Your task to perform on an android device: Add usb-c to the cart on target Image 0: 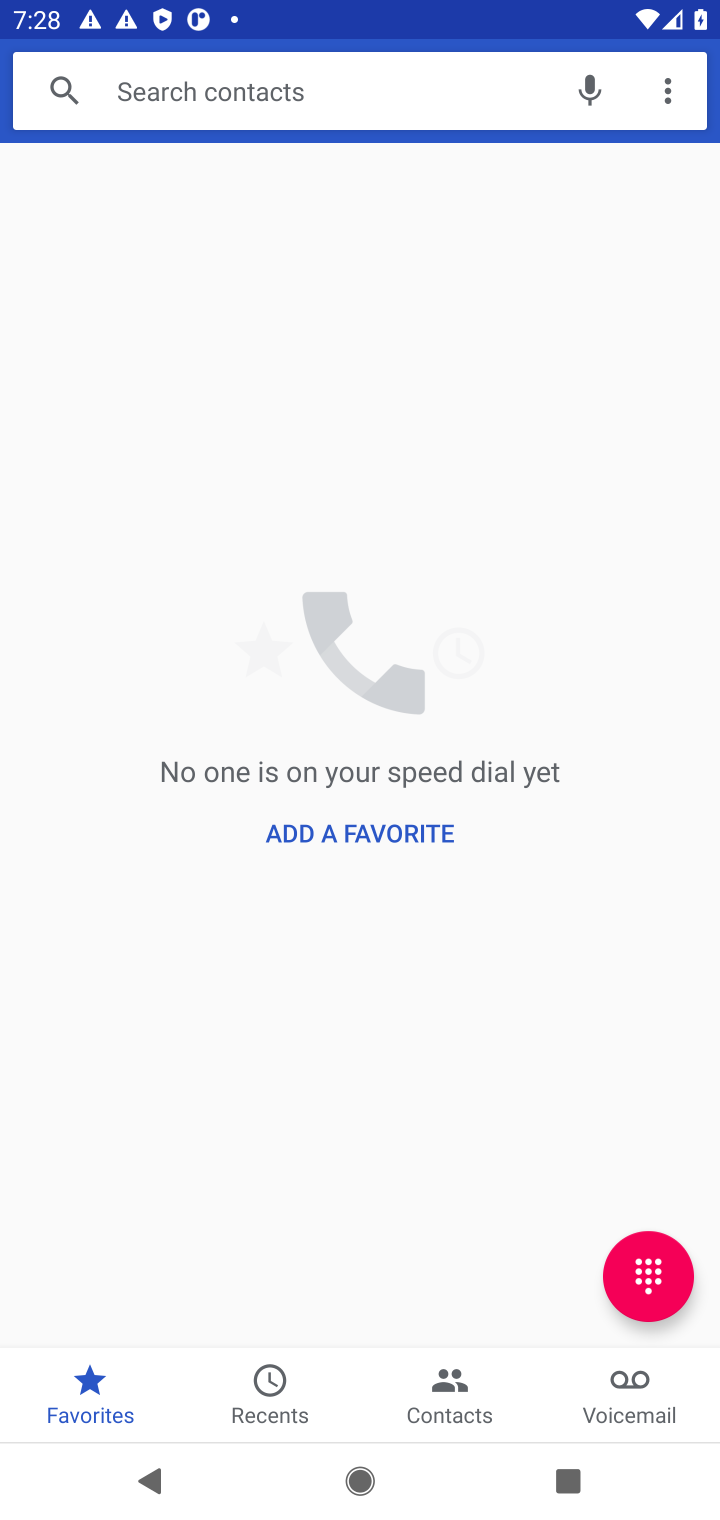
Step 0: press home button
Your task to perform on an android device: Add usb-c to the cart on target Image 1: 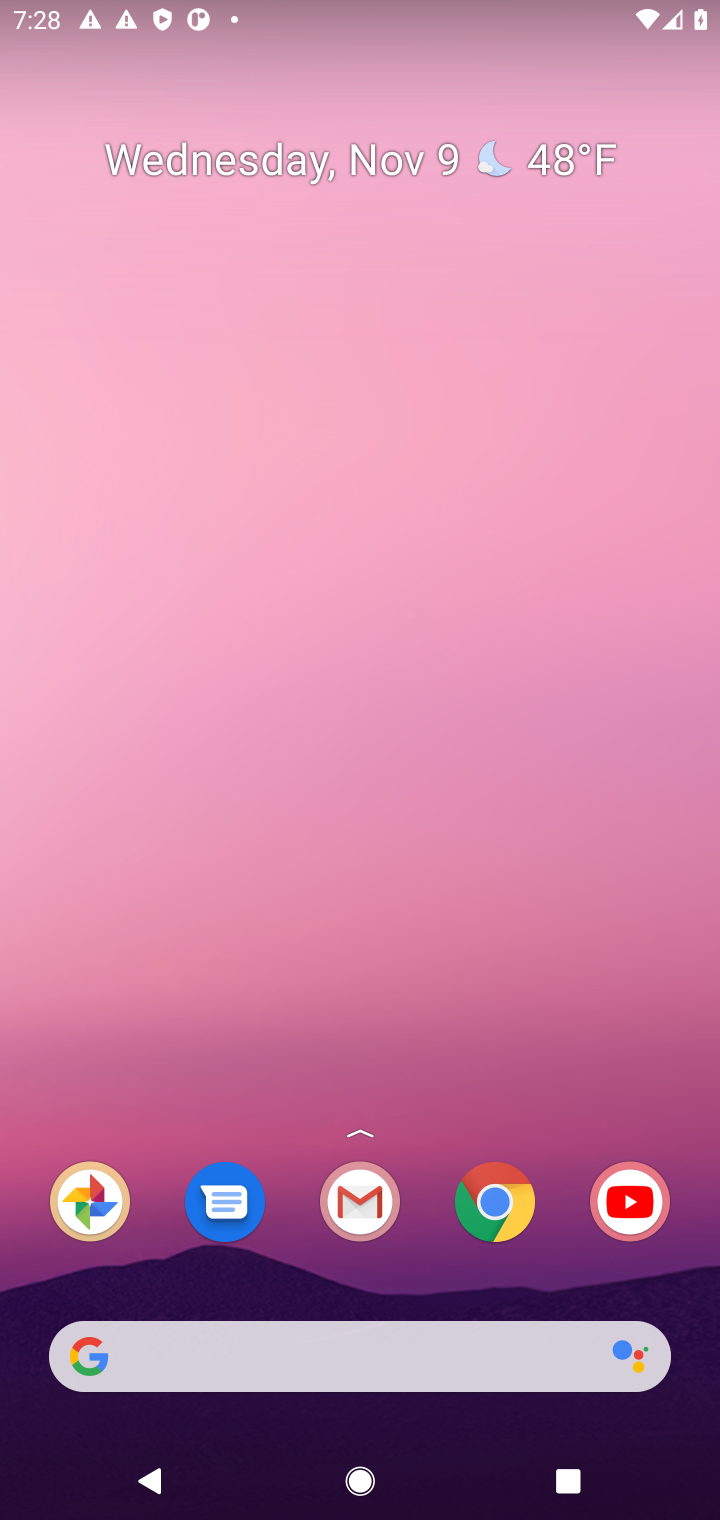
Step 1: click (506, 1200)
Your task to perform on an android device: Add usb-c to the cart on target Image 2: 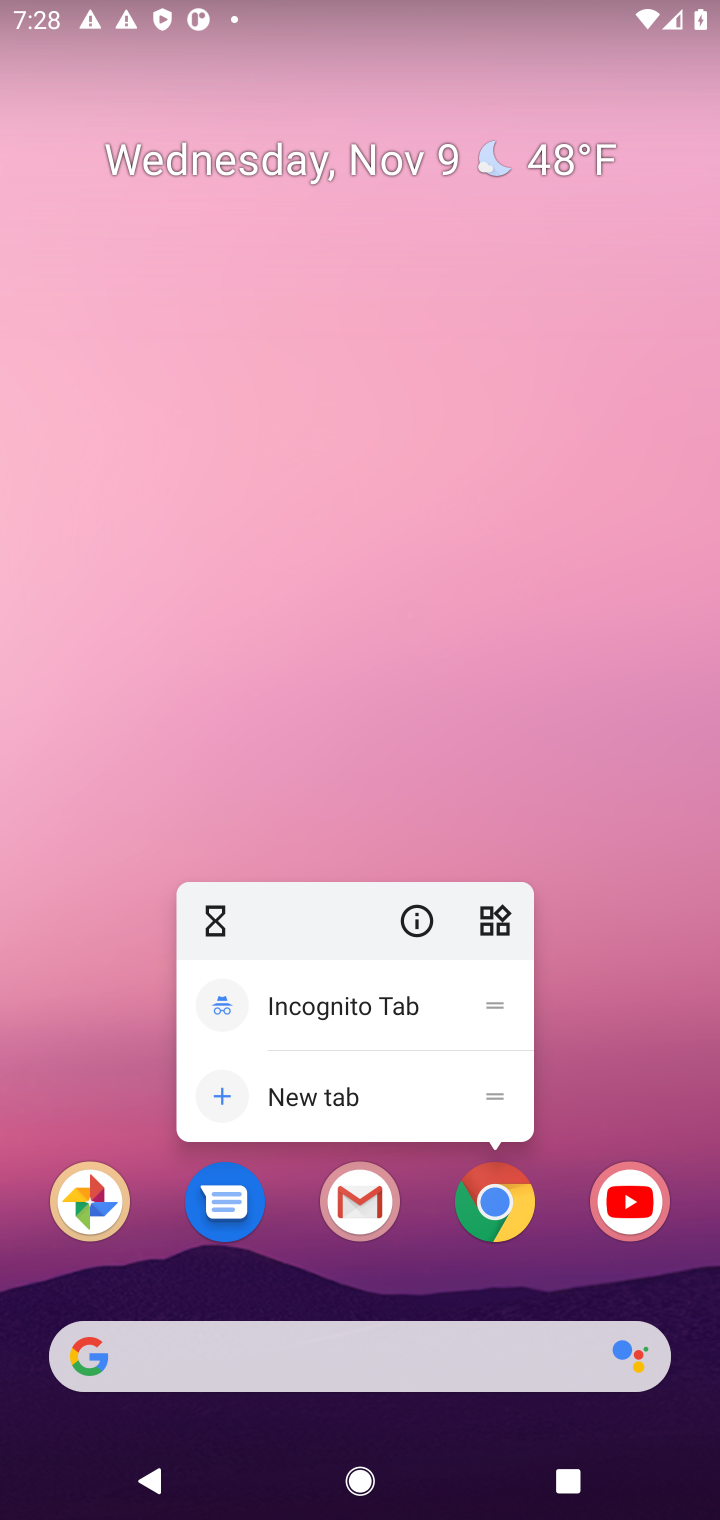
Step 2: click (506, 1204)
Your task to perform on an android device: Add usb-c to the cart on target Image 3: 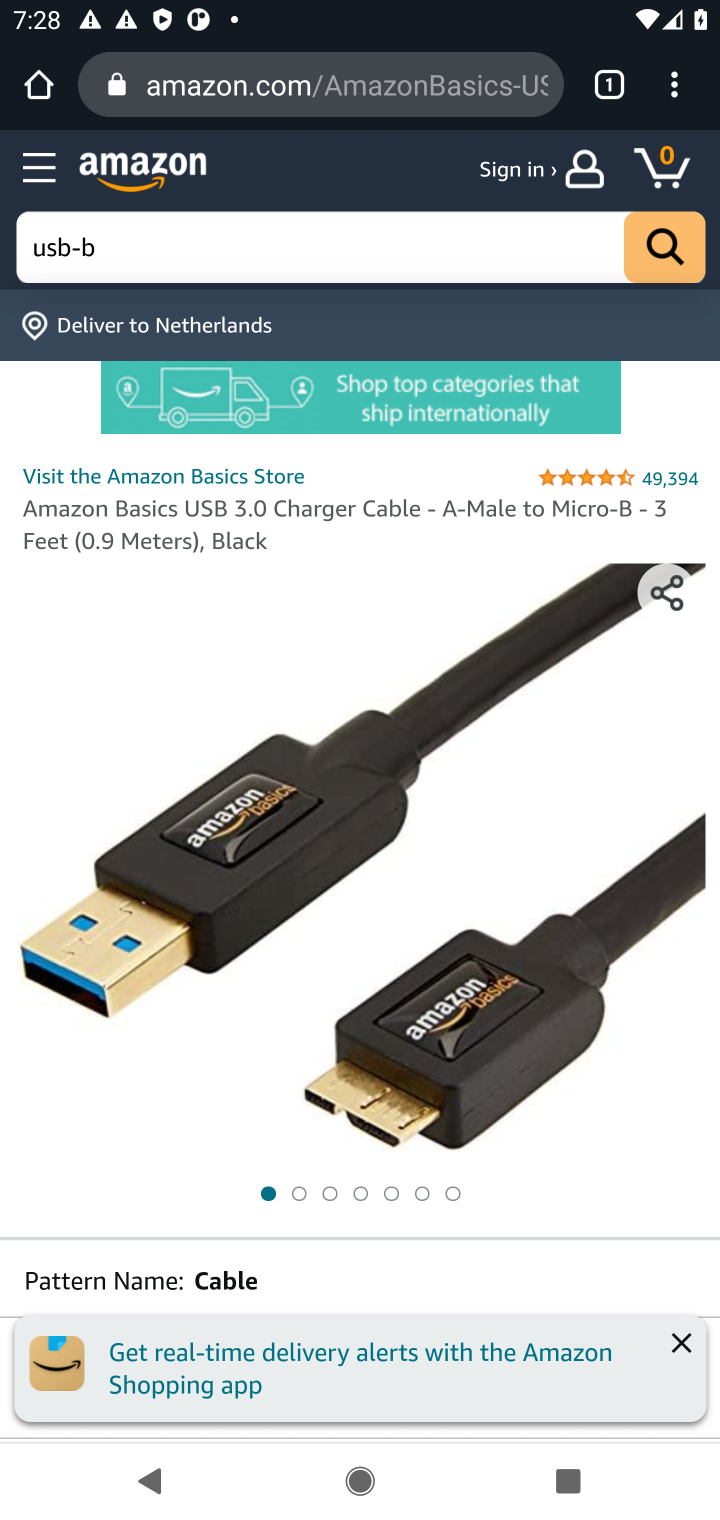
Step 3: click (393, 91)
Your task to perform on an android device: Add usb-c to the cart on target Image 4: 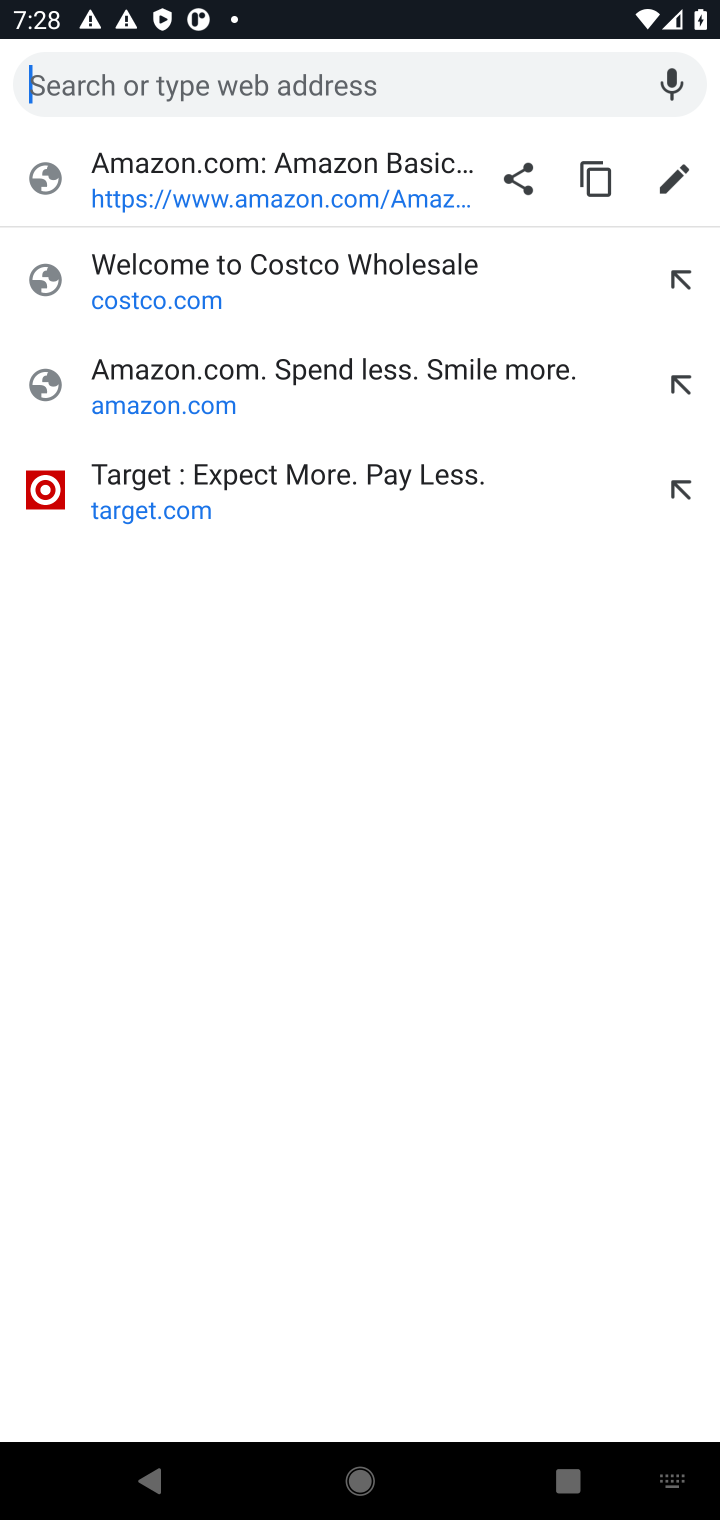
Step 4: click (55, 481)
Your task to perform on an android device: Add usb-c to the cart on target Image 5: 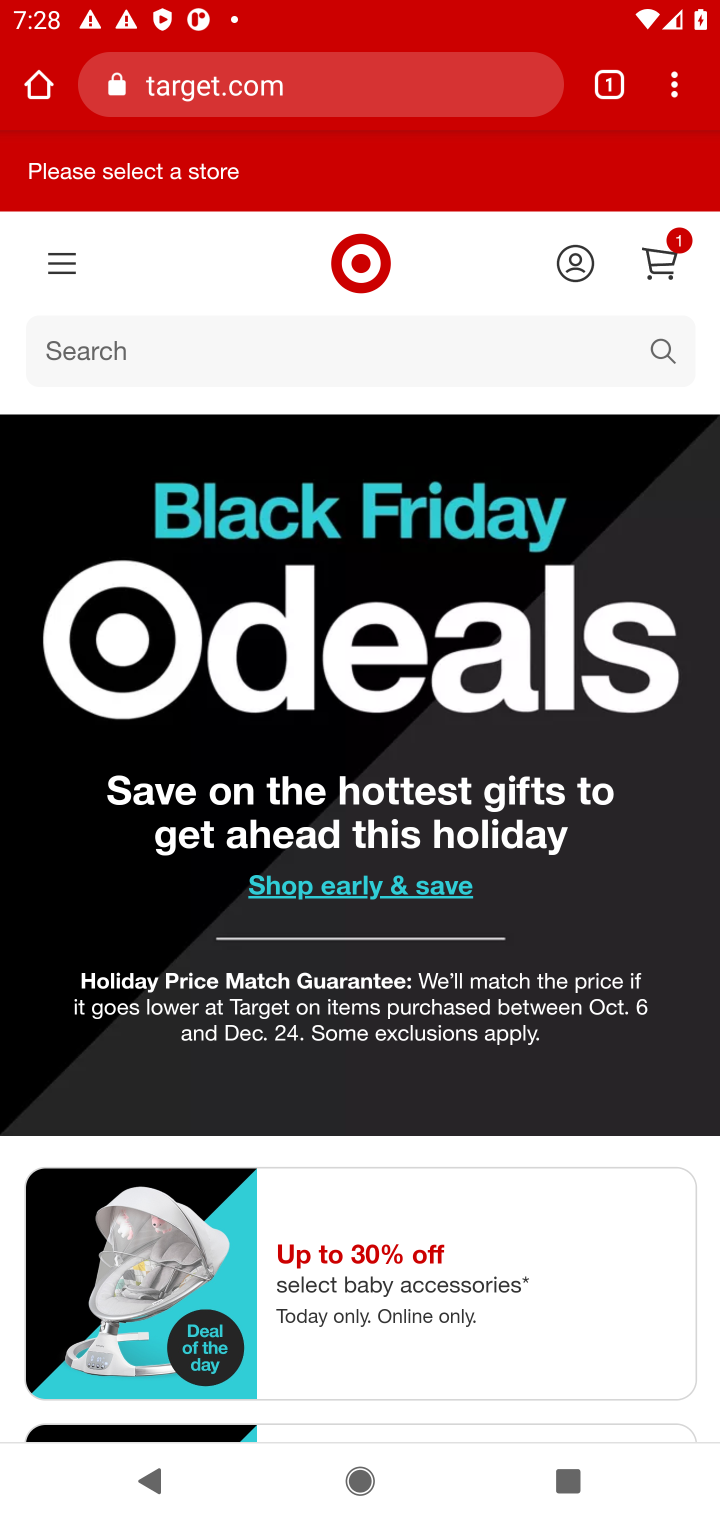
Step 5: drag from (307, 308) to (266, 395)
Your task to perform on an android device: Add usb-c to the cart on target Image 6: 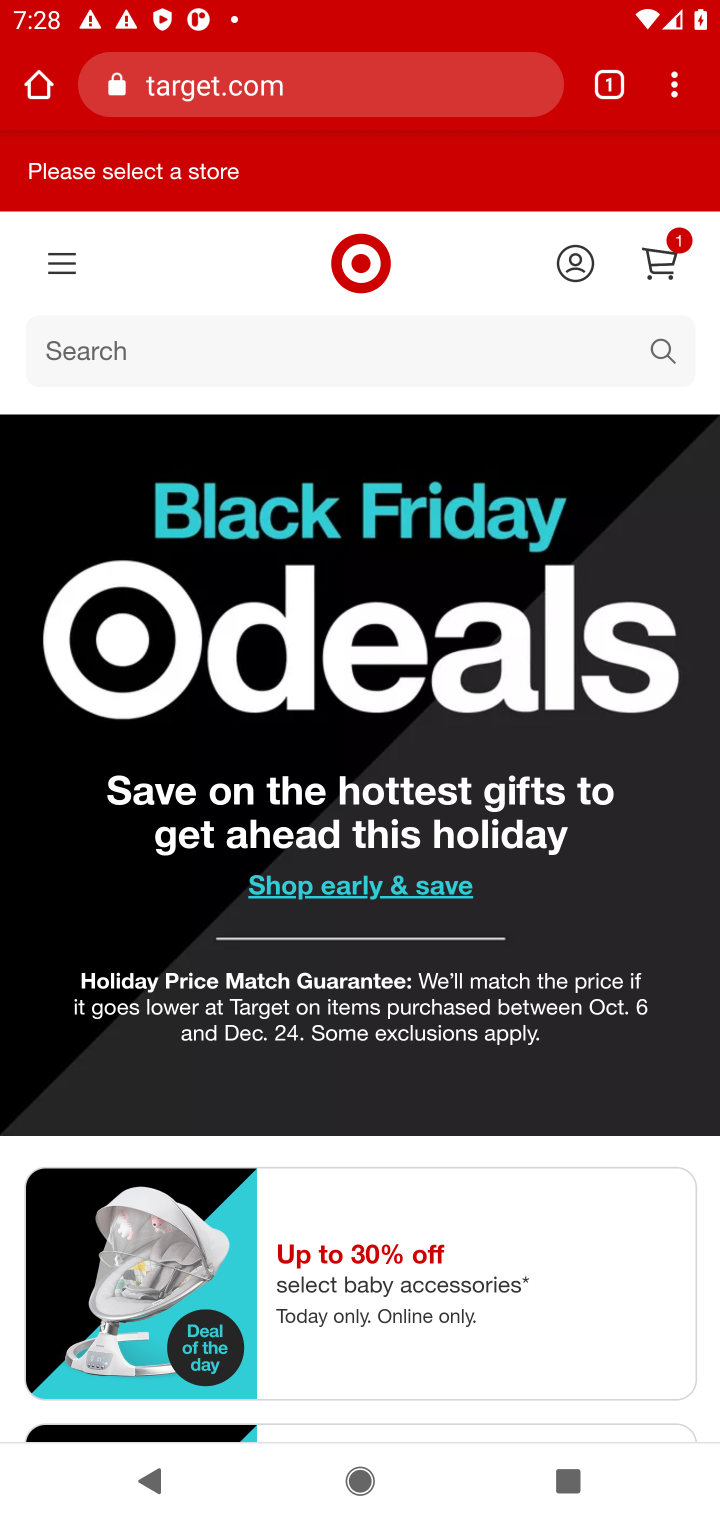
Step 6: click (284, 338)
Your task to perform on an android device: Add usb-c to the cart on target Image 7: 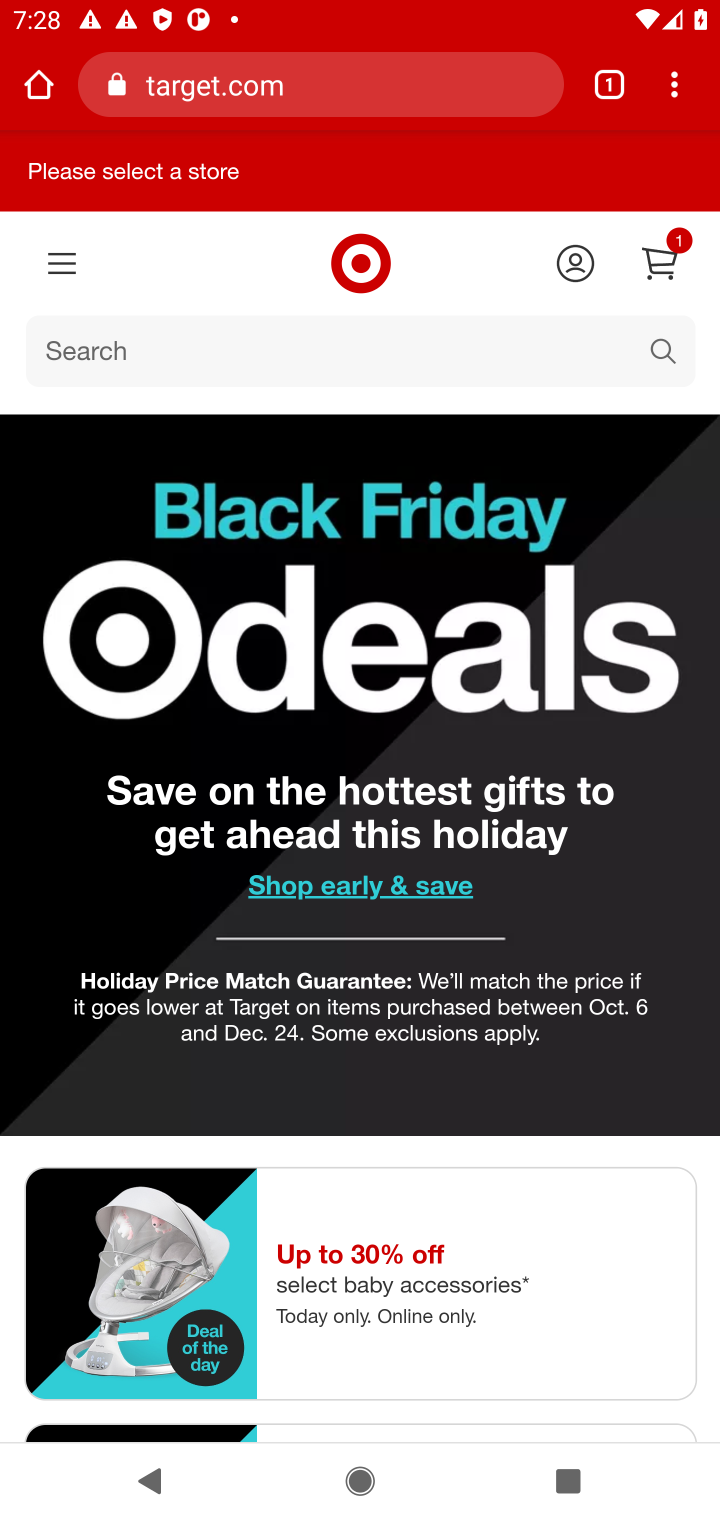
Step 7: click (105, 348)
Your task to perform on an android device: Add usb-c to the cart on target Image 8: 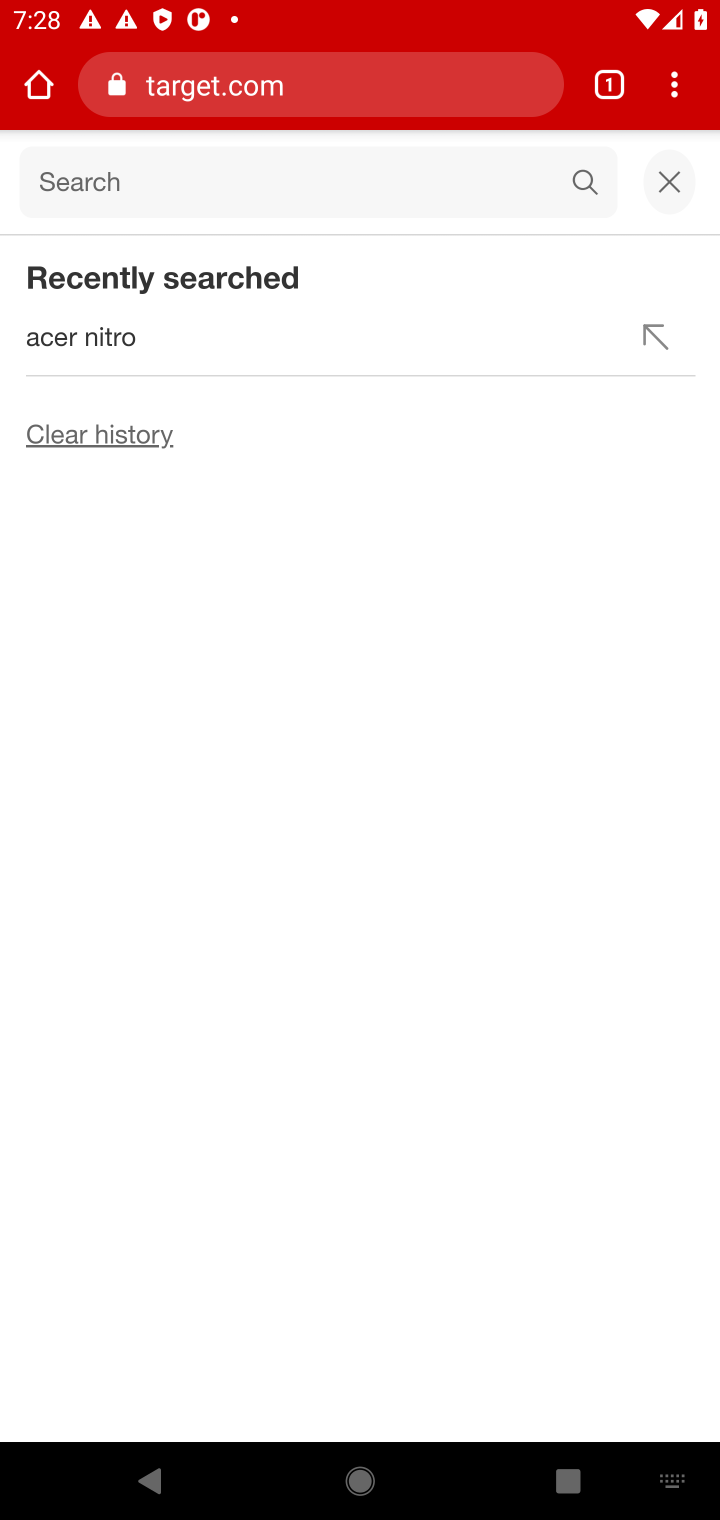
Step 8: type " usb-c "
Your task to perform on an android device: Add usb-c to the cart on target Image 9: 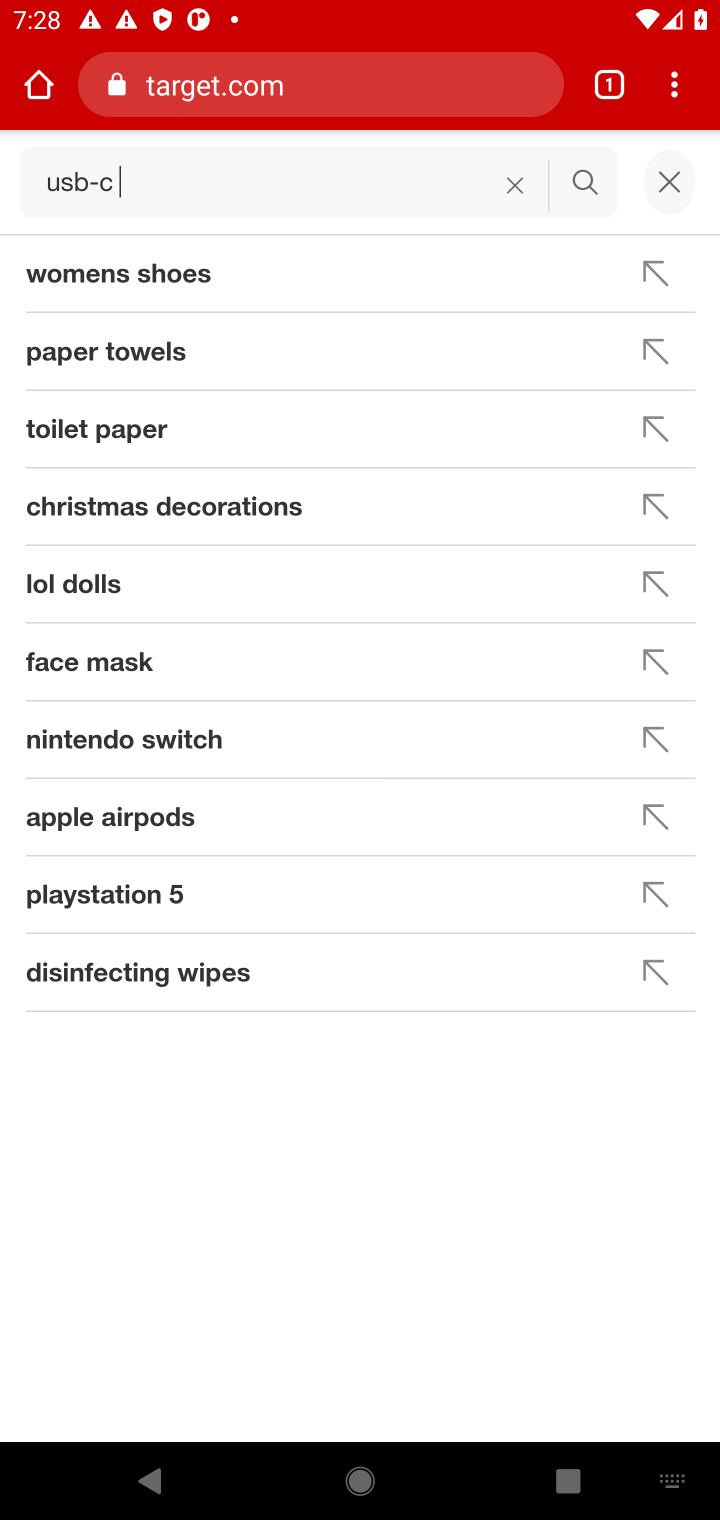
Step 9: press enter
Your task to perform on an android device: Add usb-c to the cart on target Image 10: 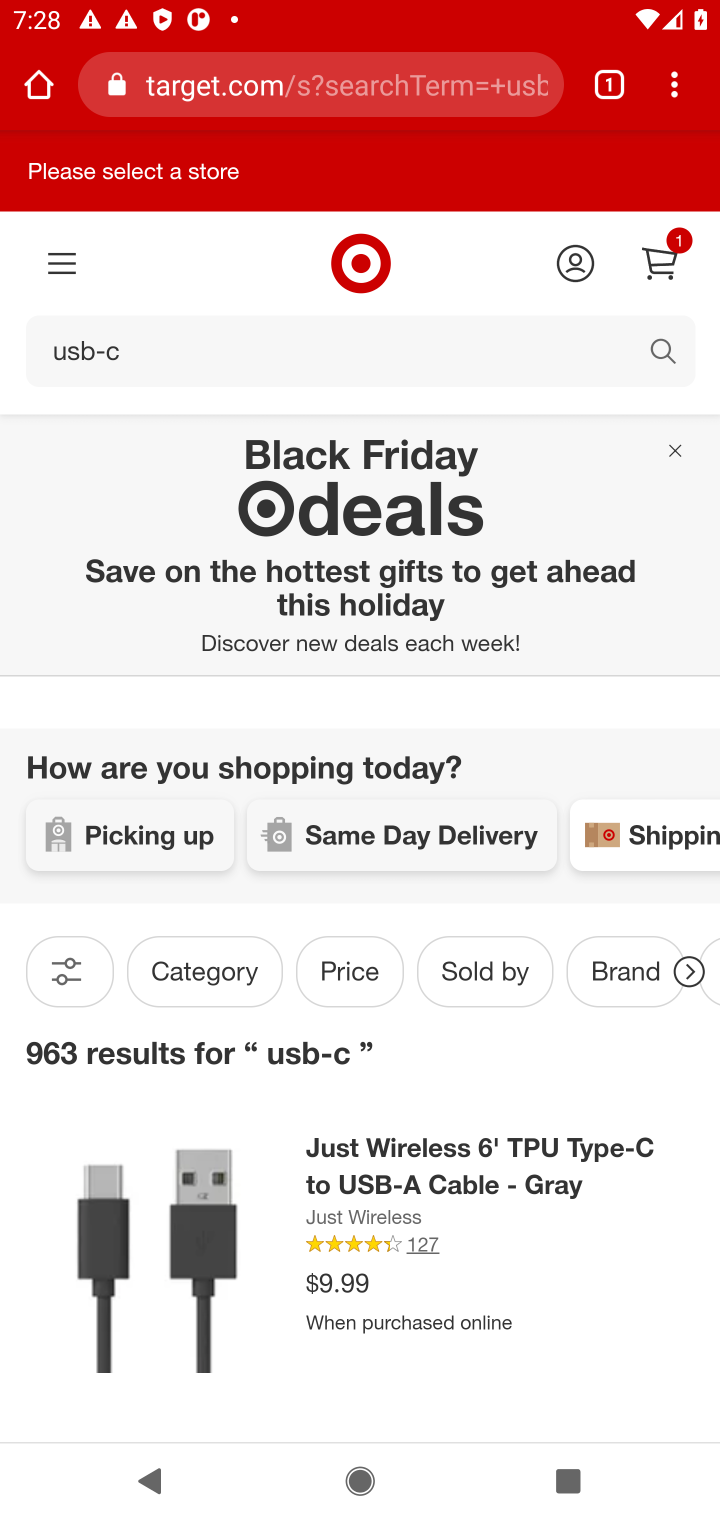
Step 10: click (434, 1220)
Your task to perform on an android device: Add usb-c to the cart on target Image 11: 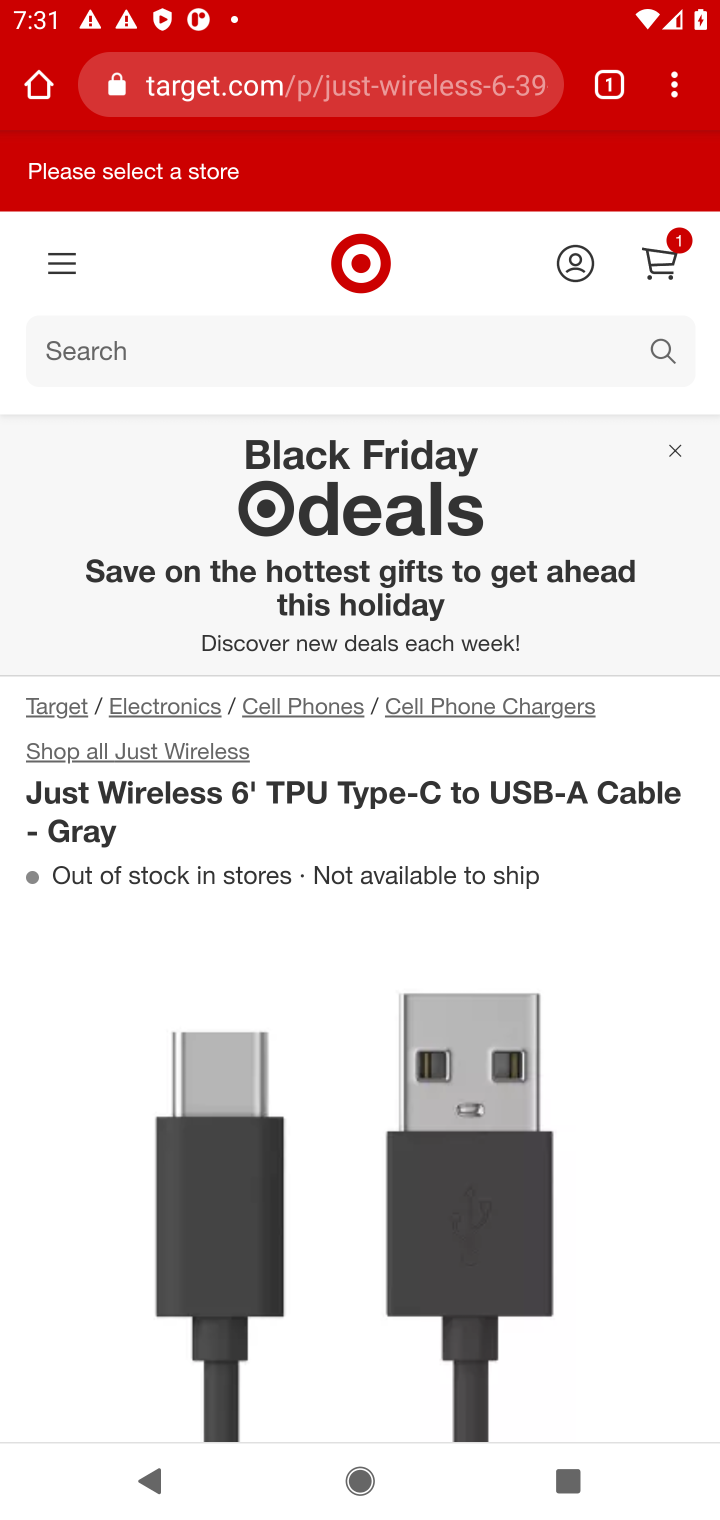
Step 11: task complete